Your task to perform on an android device: Open the Play Movies app and select the watchlist tab. Image 0: 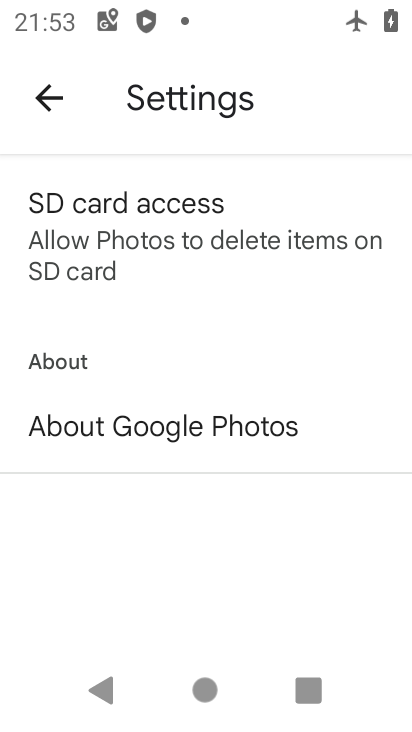
Step 0: press home button
Your task to perform on an android device: Open the Play Movies app and select the watchlist tab. Image 1: 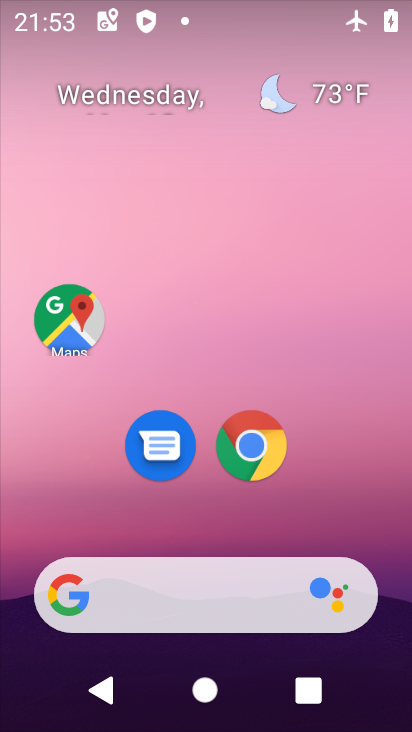
Step 1: drag from (307, 487) to (325, 224)
Your task to perform on an android device: Open the Play Movies app and select the watchlist tab. Image 2: 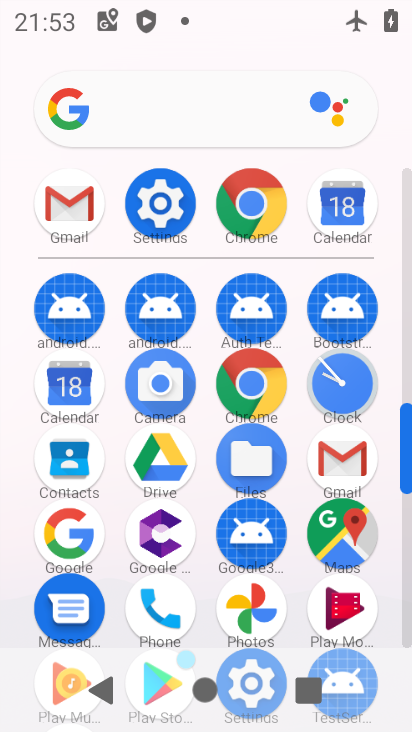
Step 2: drag from (304, 555) to (300, 237)
Your task to perform on an android device: Open the Play Movies app and select the watchlist tab. Image 3: 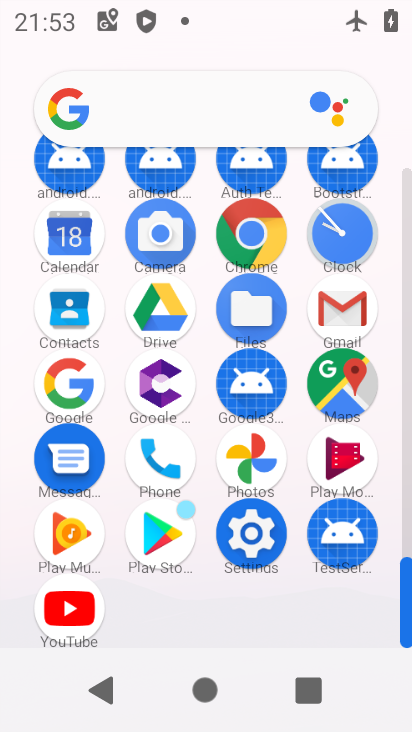
Step 3: click (346, 452)
Your task to perform on an android device: Open the Play Movies app and select the watchlist tab. Image 4: 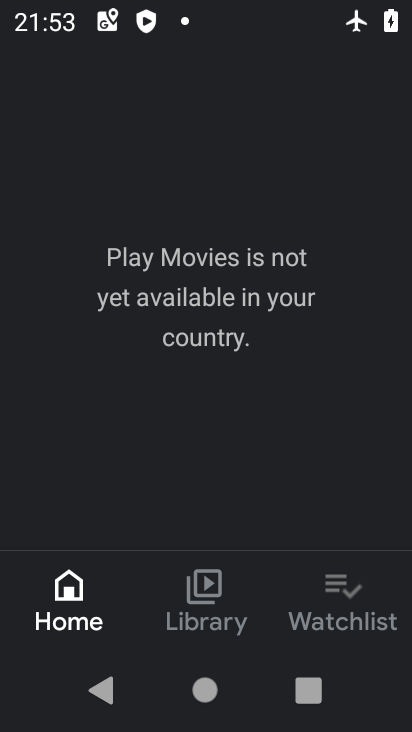
Step 4: click (326, 604)
Your task to perform on an android device: Open the Play Movies app and select the watchlist tab. Image 5: 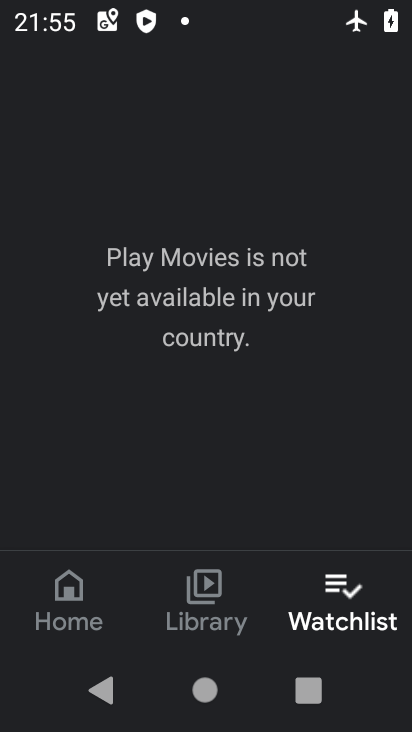
Step 5: task complete